Your task to perform on an android device: turn off wifi Image 0: 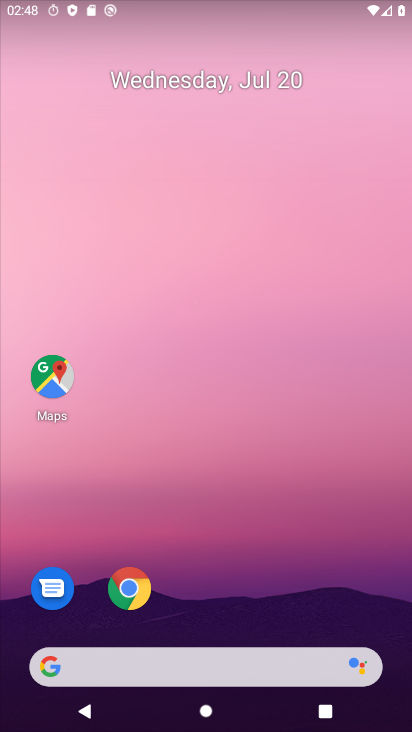
Step 0: drag from (187, 628) to (204, 54)
Your task to perform on an android device: turn off wifi Image 1: 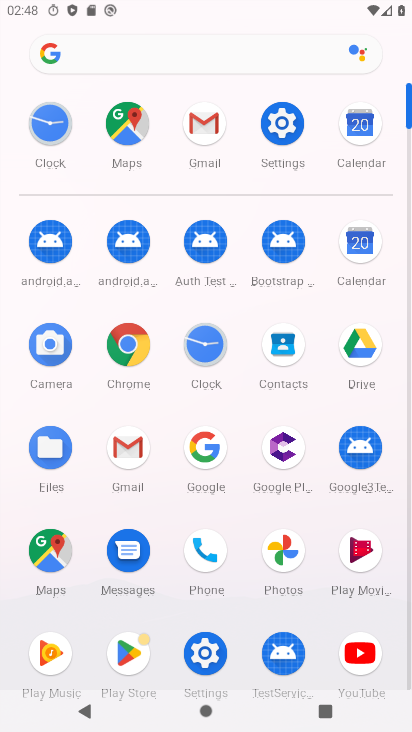
Step 1: click (206, 656)
Your task to perform on an android device: turn off wifi Image 2: 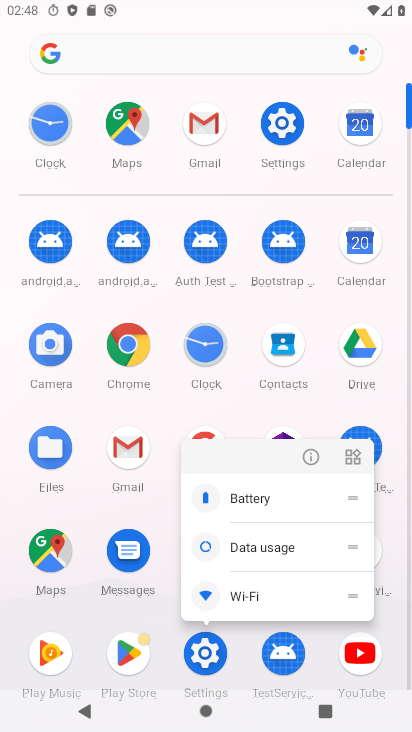
Step 2: click (310, 444)
Your task to perform on an android device: turn off wifi Image 3: 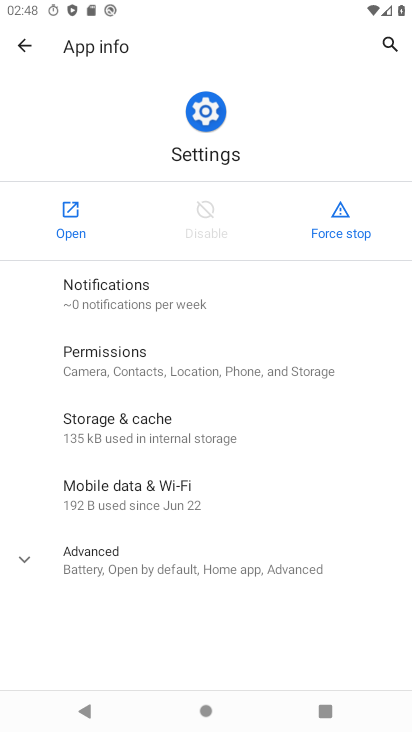
Step 3: click (79, 215)
Your task to perform on an android device: turn off wifi Image 4: 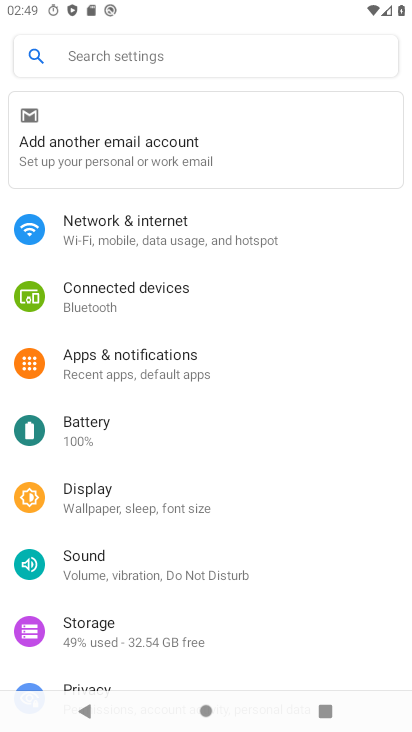
Step 4: click (175, 237)
Your task to perform on an android device: turn off wifi Image 5: 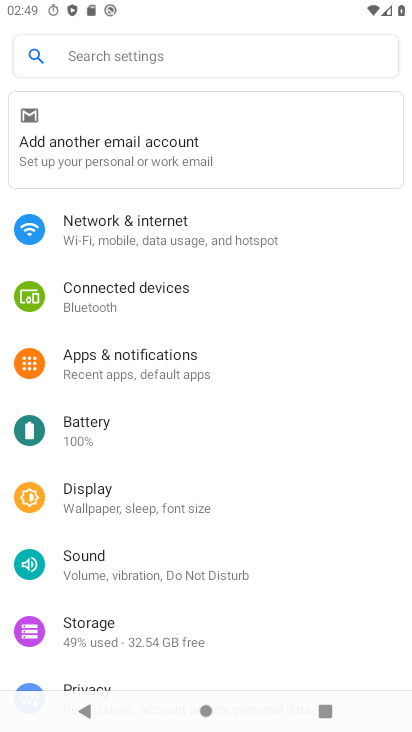
Step 5: click (200, 234)
Your task to perform on an android device: turn off wifi Image 6: 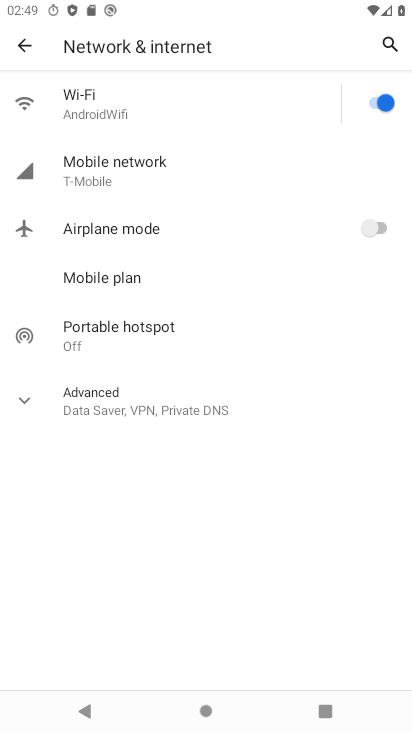
Step 6: click (152, 105)
Your task to perform on an android device: turn off wifi Image 7: 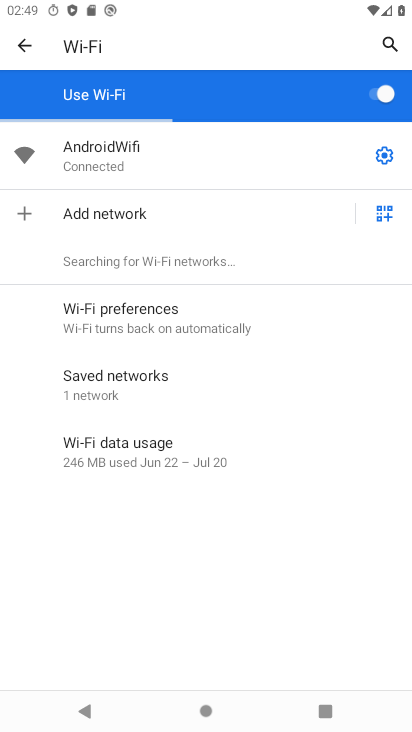
Step 7: click (375, 104)
Your task to perform on an android device: turn off wifi Image 8: 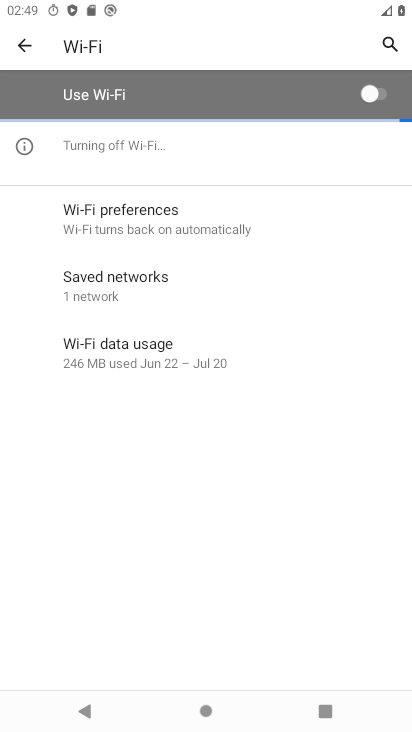
Step 8: task complete